Your task to perform on an android device: Open Android settings Image 0: 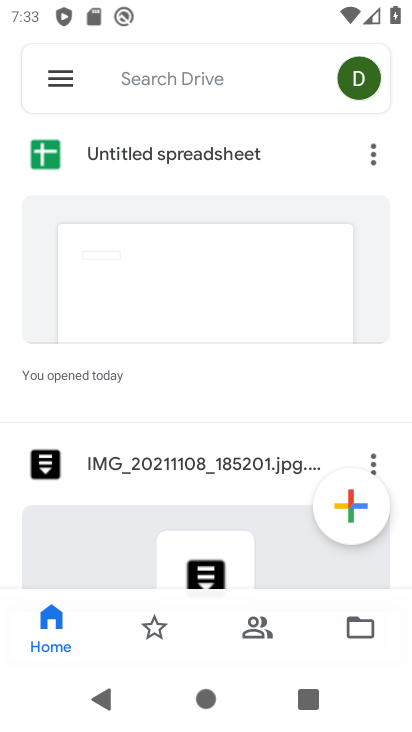
Step 0: press home button
Your task to perform on an android device: Open Android settings Image 1: 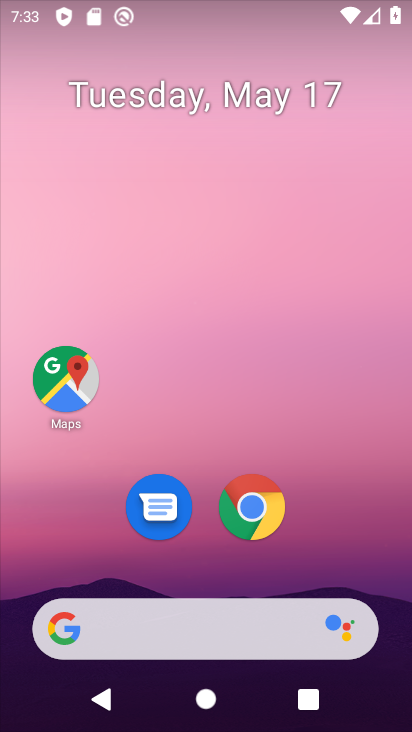
Step 1: drag from (359, 581) to (316, 7)
Your task to perform on an android device: Open Android settings Image 2: 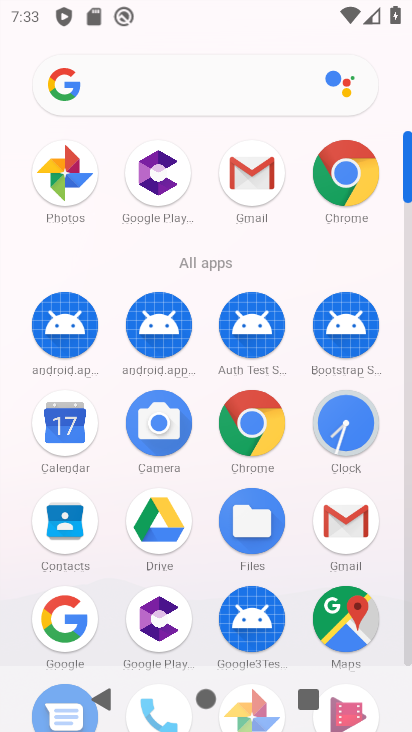
Step 2: click (409, 495)
Your task to perform on an android device: Open Android settings Image 3: 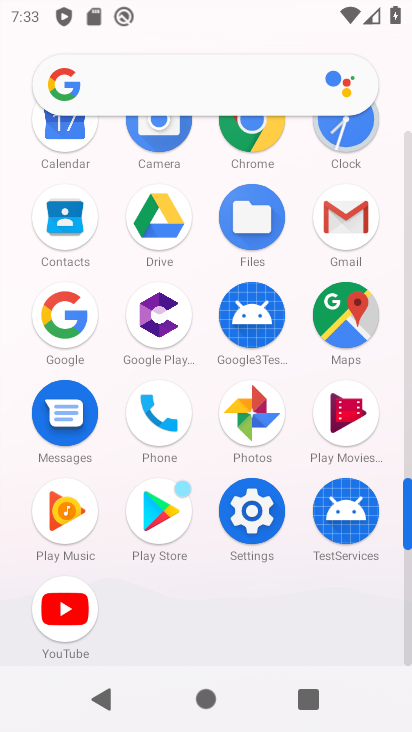
Step 3: click (247, 517)
Your task to perform on an android device: Open Android settings Image 4: 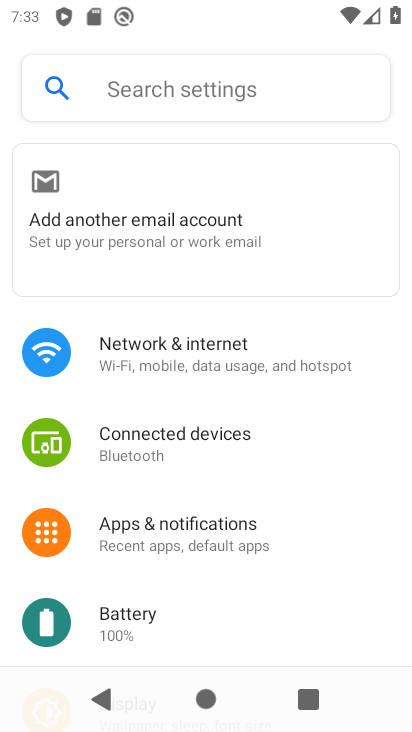
Step 4: task complete